Your task to perform on an android device: Open my contact list Image 0: 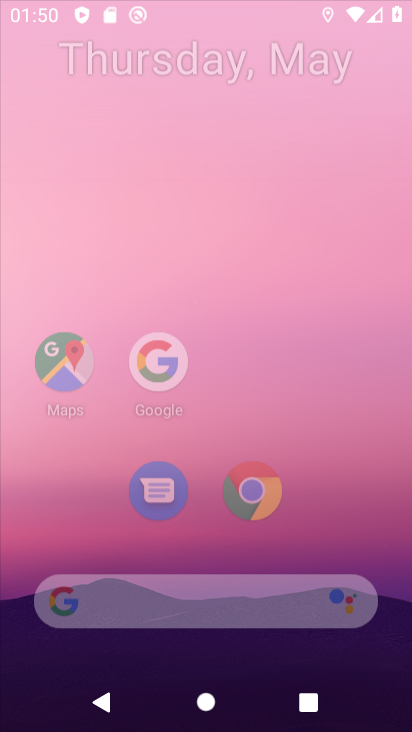
Step 0: click (262, 110)
Your task to perform on an android device: Open my contact list Image 1: 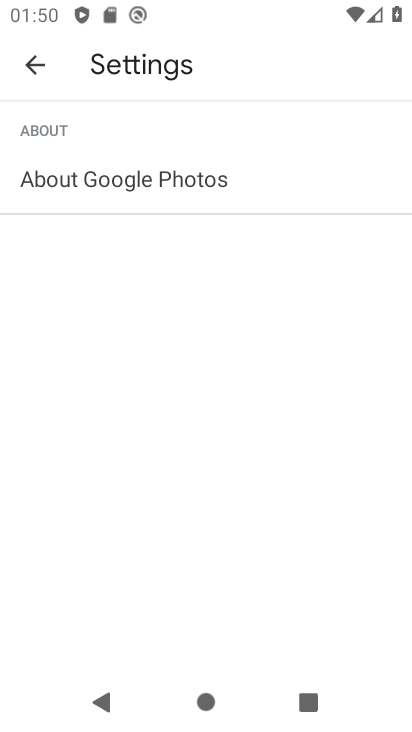
Step 1: press home button
Your task to perform on an android device: Open my contact list Image 2: 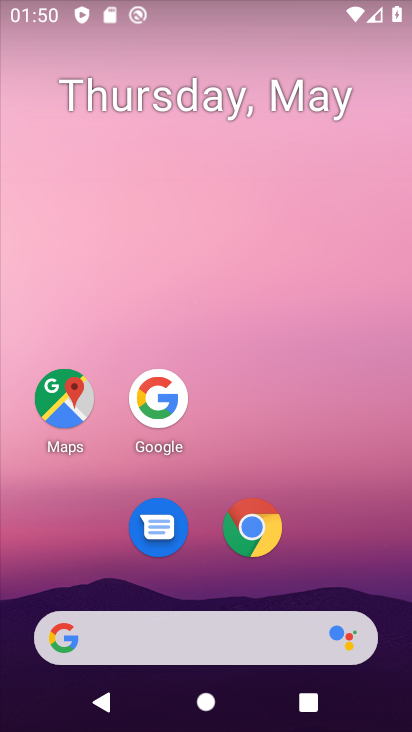
Step 2: drag from (216, 621) to (245, 95)
Your task to perform on an android device: Open my contact list Image 3: 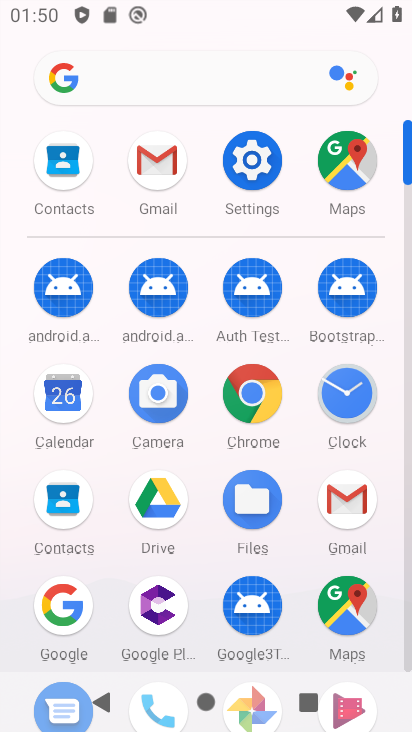
Step 3: click (82, 514)
Your task to perform on an android device: Open my contact list Image 4: 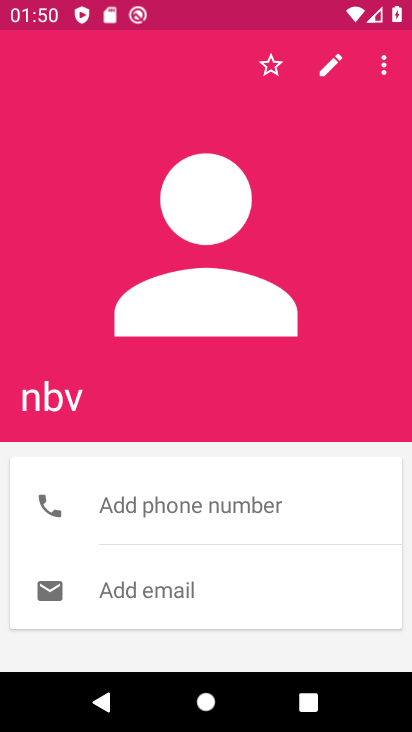
Step 4: task complete